Your task to perform on an android device: see tabs open on other devices in the chrome app Image 0: 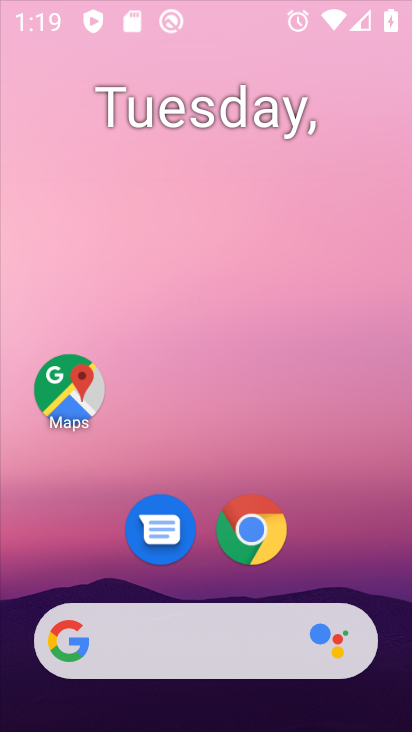
Step 0: drag from (385, 613) to (261, 30)
Your task to perform on an android device: see tabs open on other devices in the chrome app Image 1: 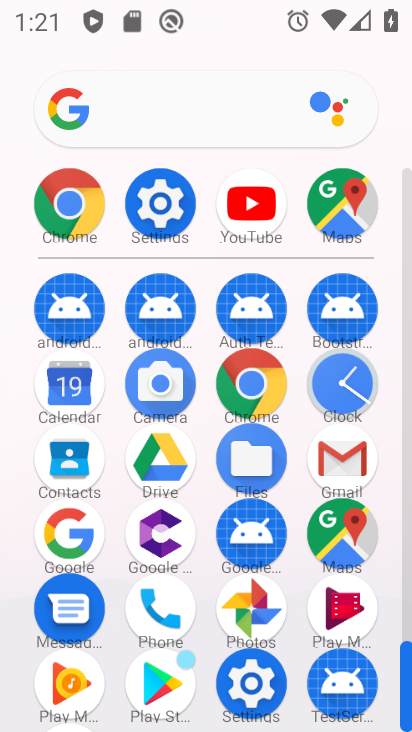
Step 1: click (258, 366)
Your task to perform on an android device: see tabs open on other devices in the chrome app Image 2: 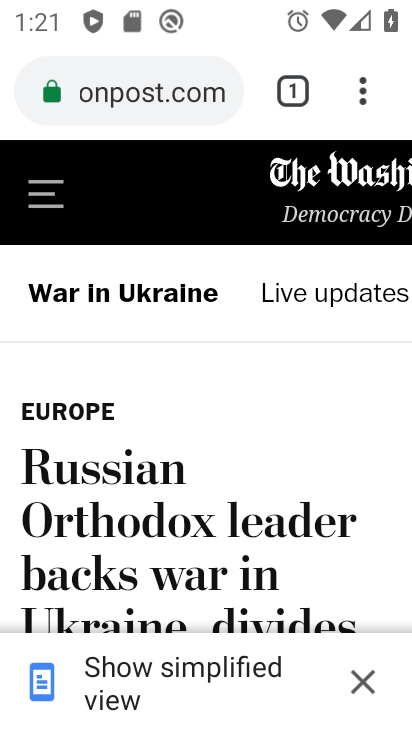
Step 2: task complete